Your task to perform on an android device: open device folders in google photos Image 0: 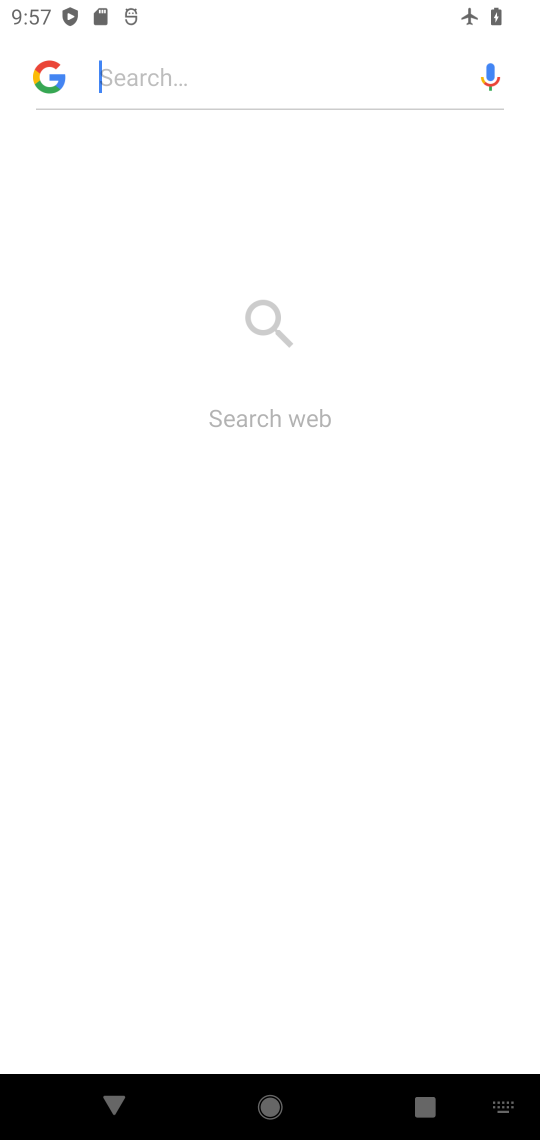
Step 0: press home button
Your task to perform on an android device: open device folders in google photos Image 1: 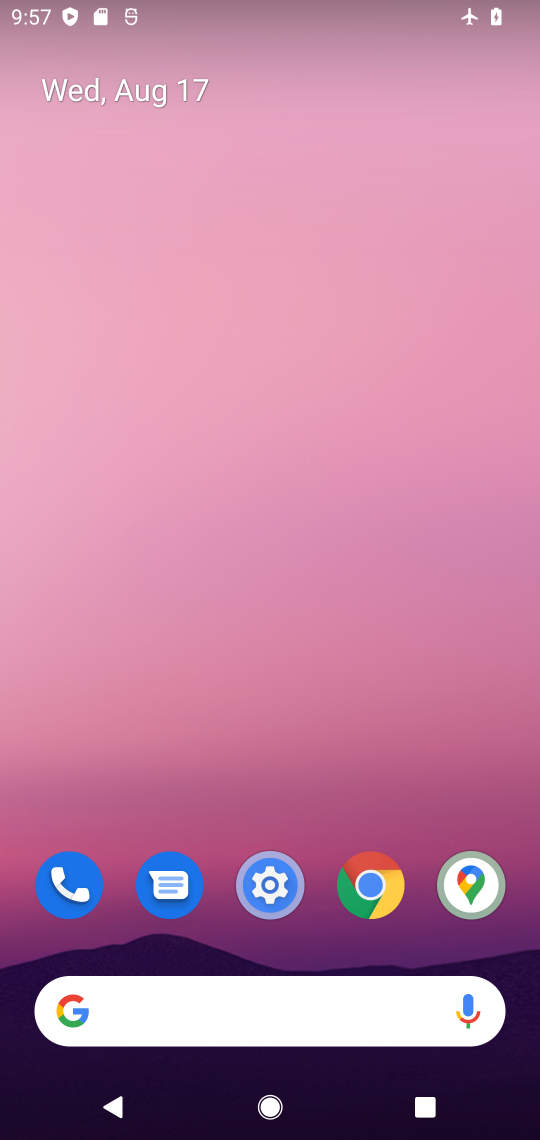
Step 1: drag from (419, 936) to (363, 117)
Your task to perform on an android device: open device folders in google photos Image 2: 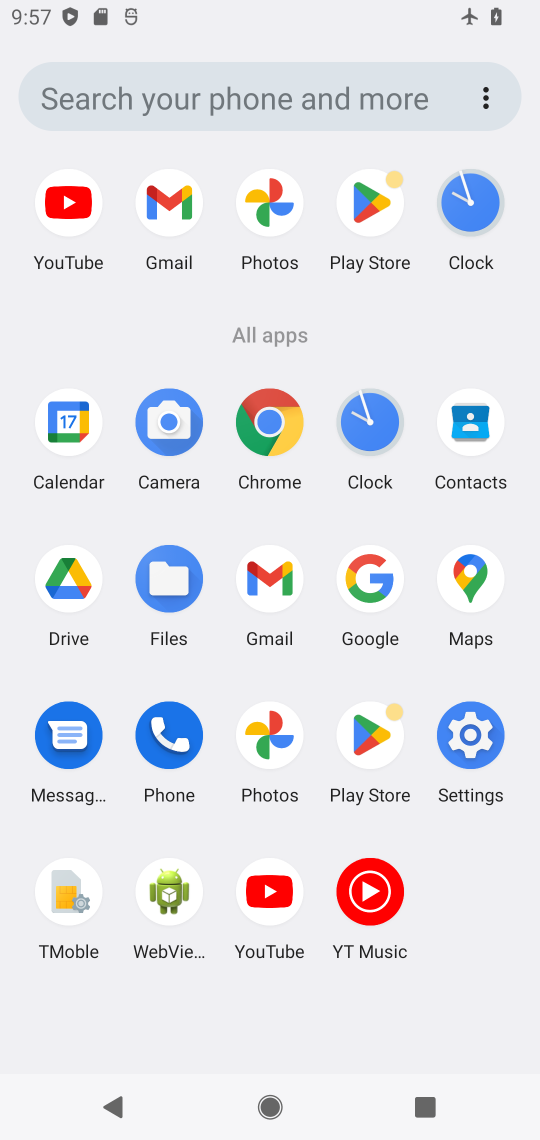
Step 2: click (273, 735)
Your task to perform on an android device: open device folders in google photos Image 3: 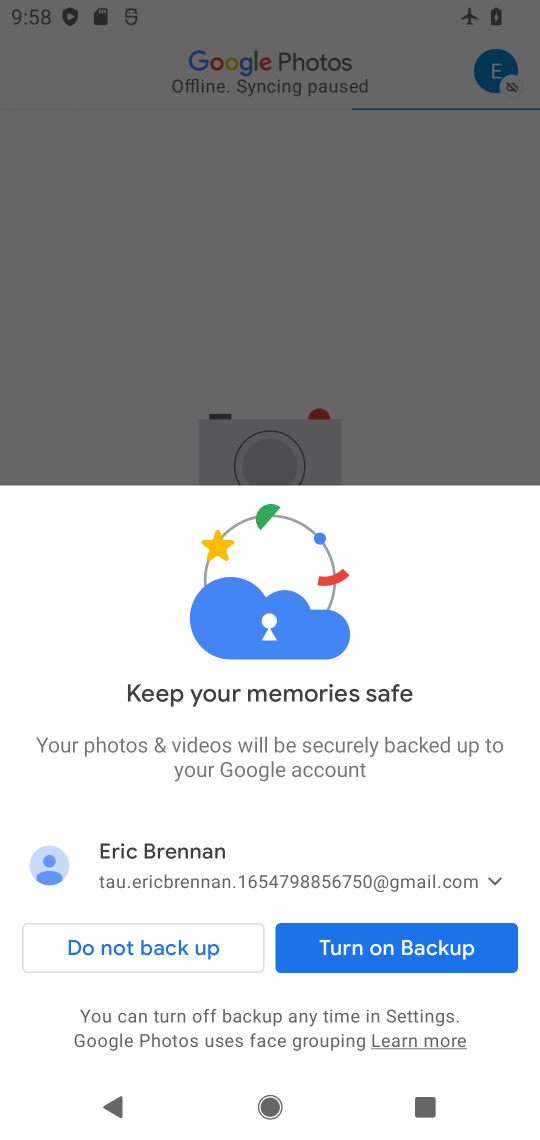
Step 3: click (388, 947)
Your task to perform on an android device: open device folders in google photos Image 4: 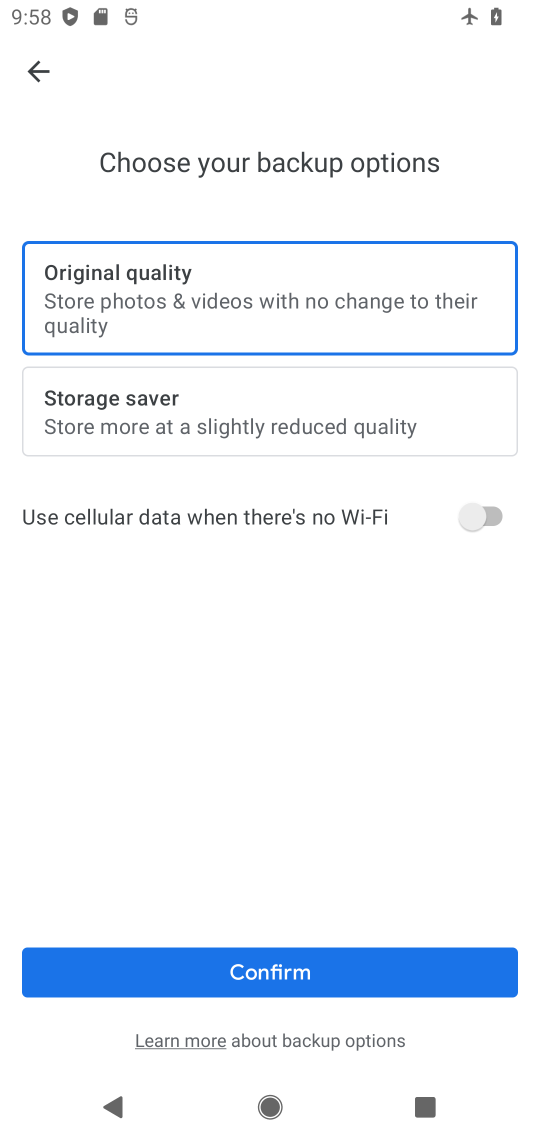
Step 4: click (282, 983)
Your task to perform on an android device: open device folders in google photos Image 5: 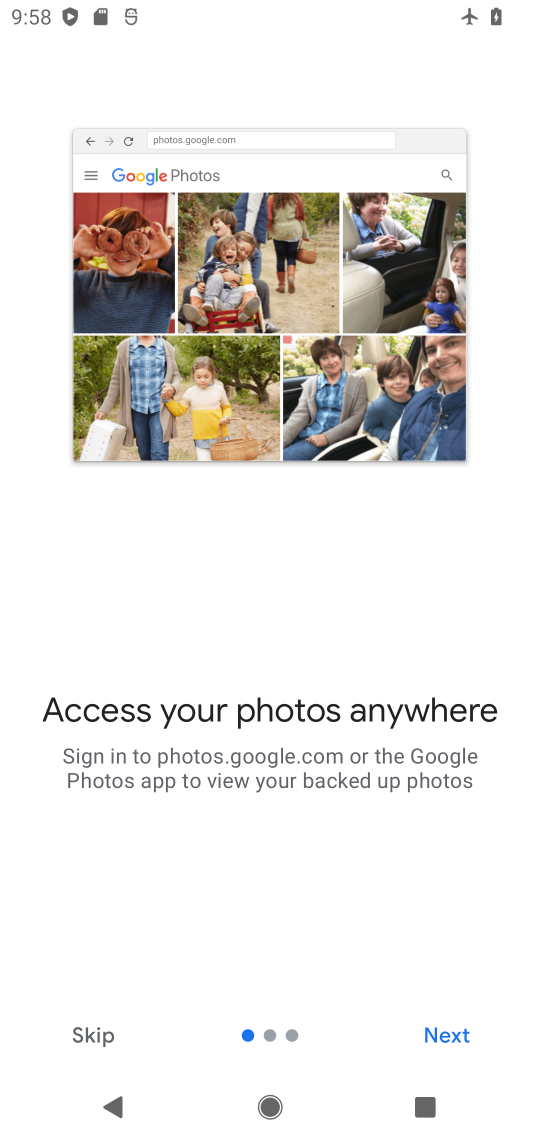
Step 5: click (88, 1034)
Your task to perform on an android device: open device folders in google photos Image 6: 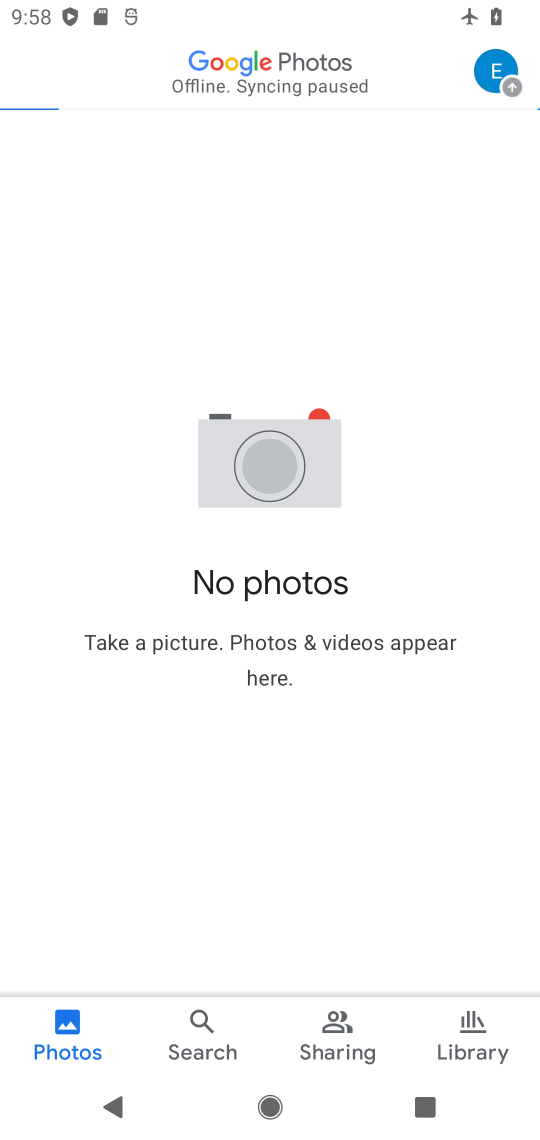
Step 6: click (492, 76)
Your task to perform on an android device: open device folders in google photos Image 7: 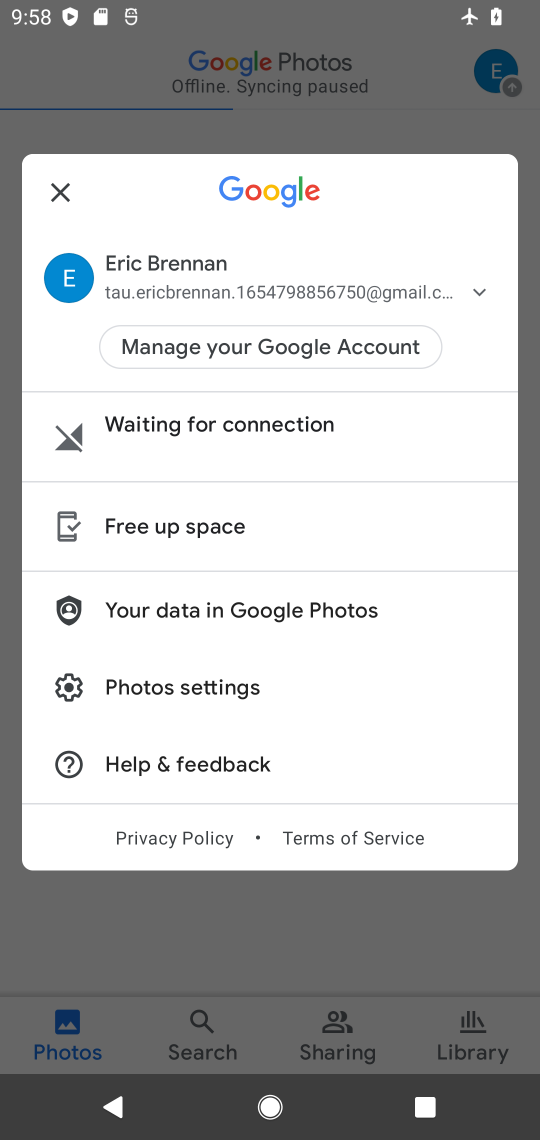
Step 7: click (174, 699)
Your task to perform on an android device: open device folders in google photos Image 8: 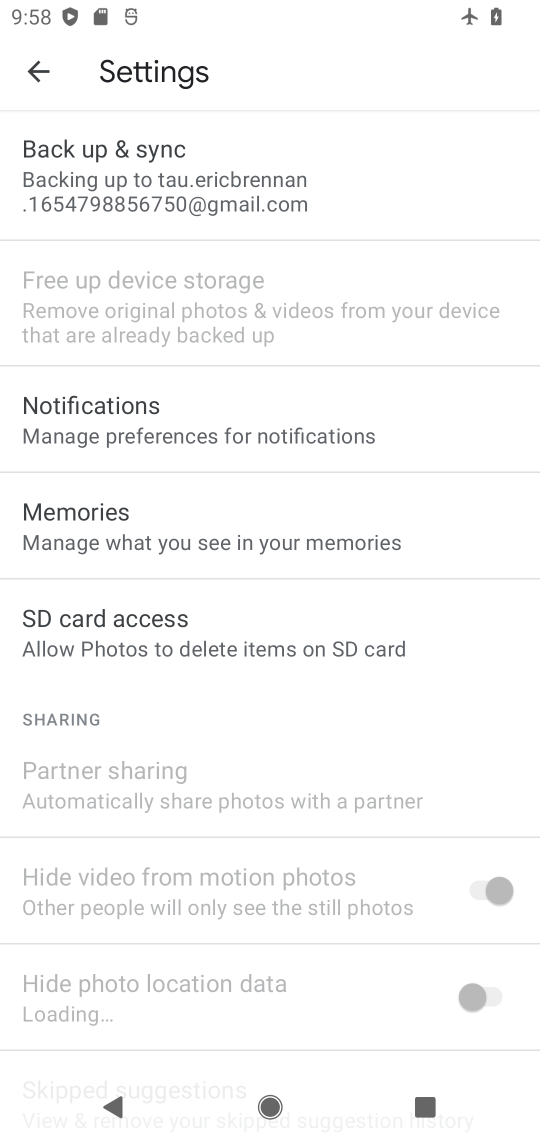
Step 8: task complete